Your task to perform on an android device: Clear the shopping cart on bestbuy. Add usb-c to usb-a to the cart on bestbuy, then select checkout. Image 0: 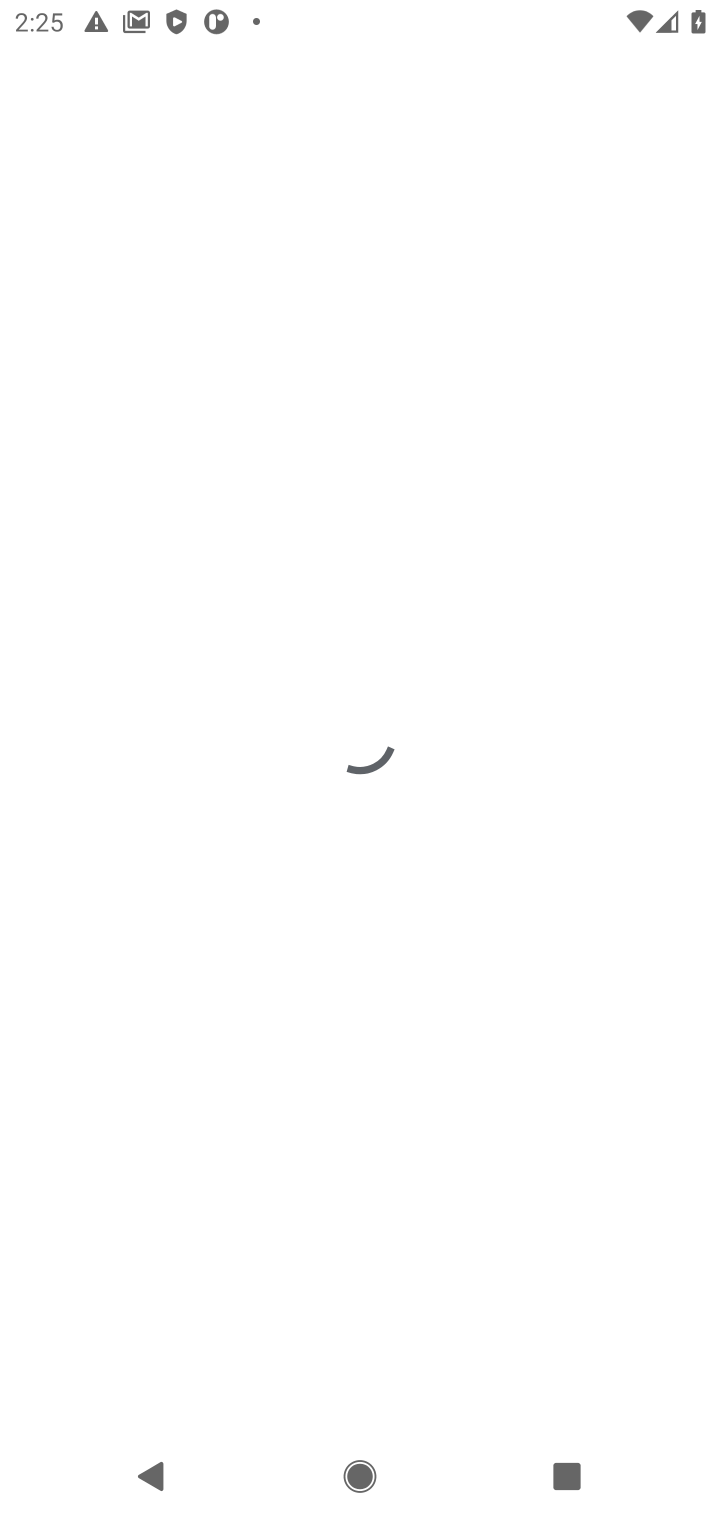
Step 0: press home button
Your task to perform on an android device: Clear the shopping cart on bestbuy. Add usb-c to usb-a to the cart on bestbuy, then select checkout. Image 1: 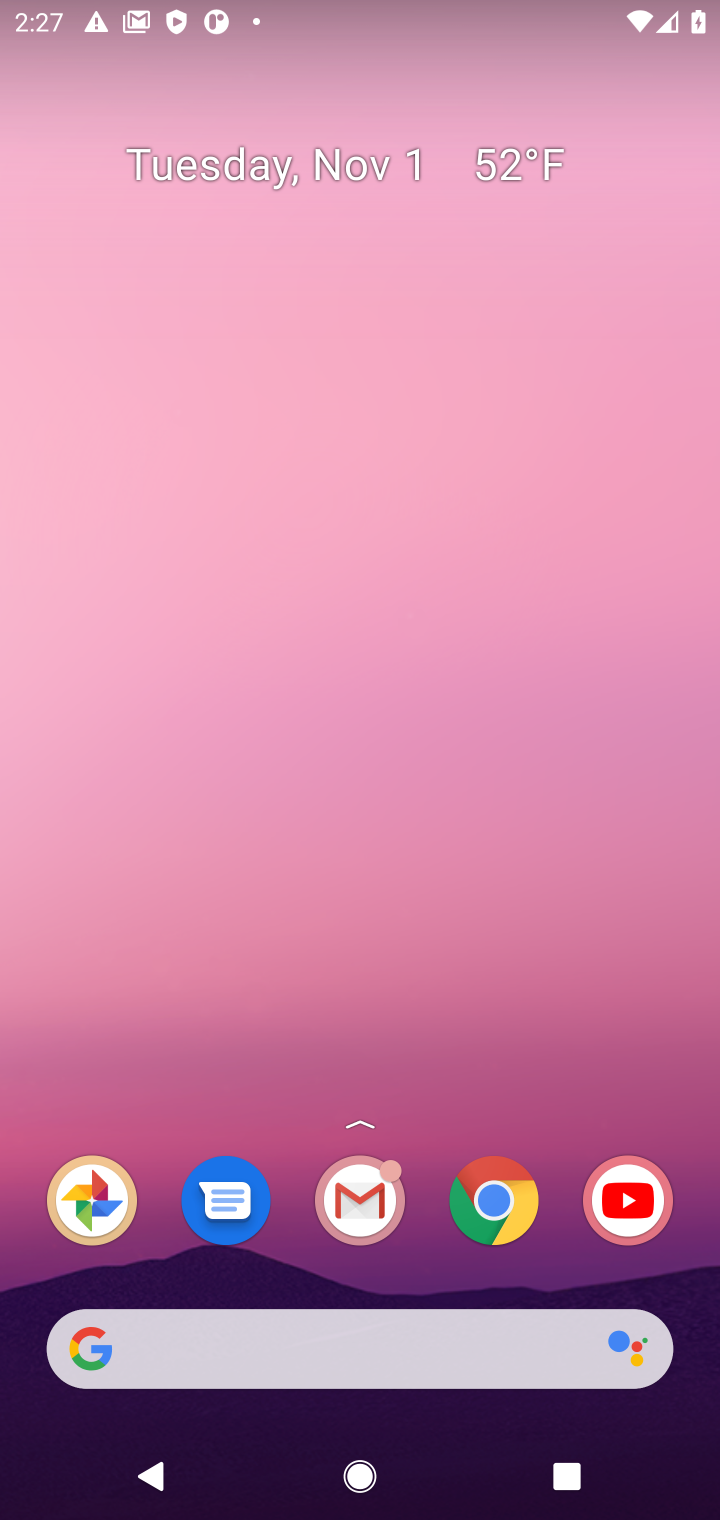
Step 1: click (90, 1350)
Your task to perform on an android device: Clear the shopping cart on bestbuy. Add usb-c to usb-a to the cart on bestbuy, then select checkout. Image 2: 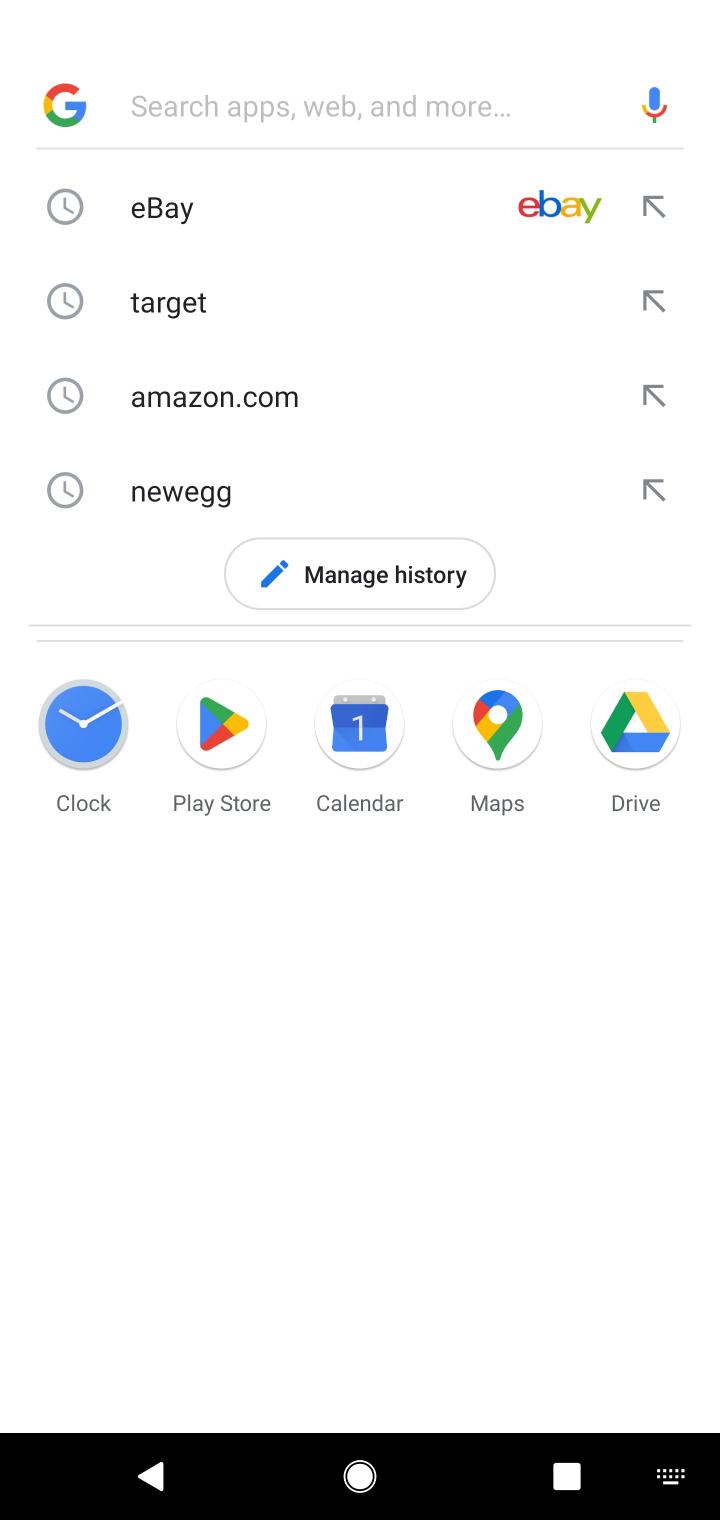
Step 2: type "bestbuy"
Your task to perform on an android device: Clear the shopping cart on bestbuy. Add usb-c to usb-a to the cart on bestbuy, then select checkout. Image 3: 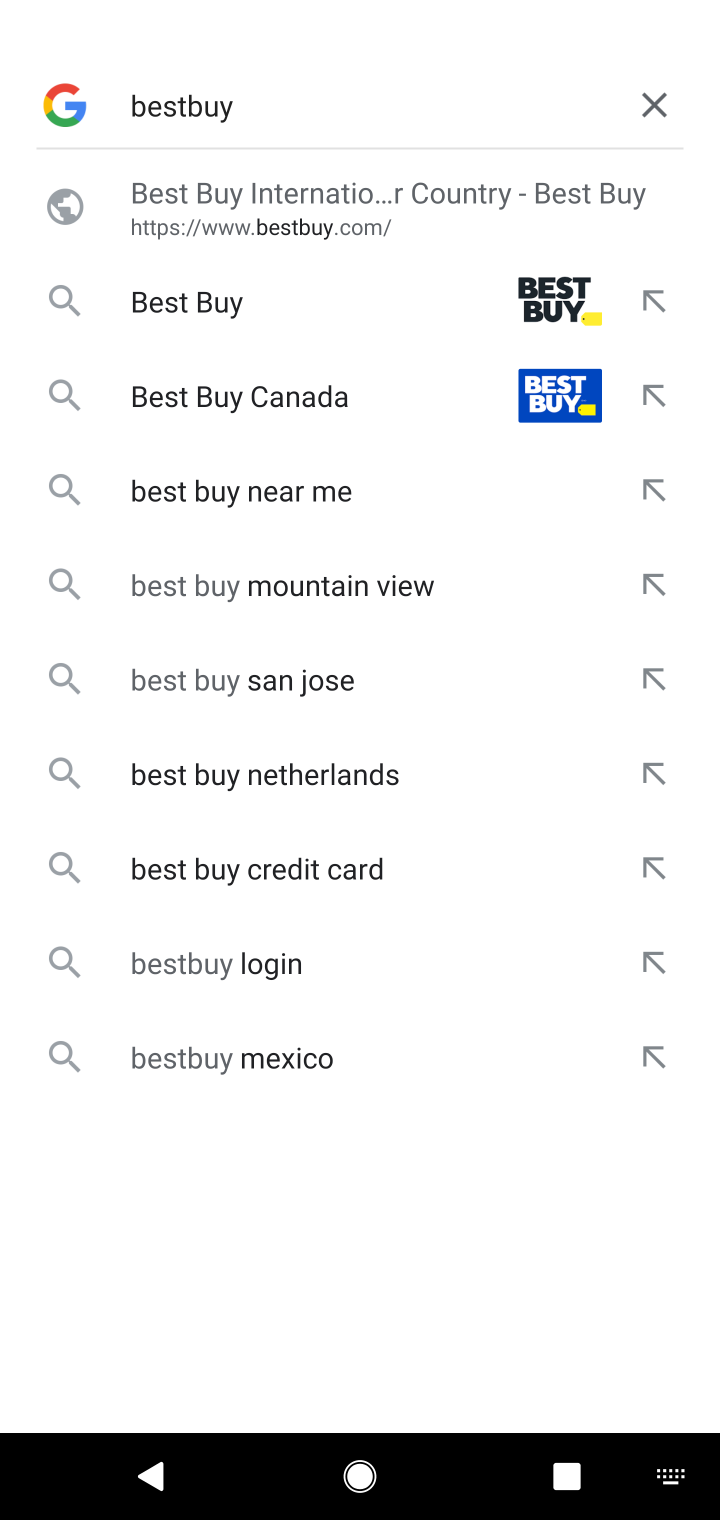
Step 3: click (265, 200)
Your task to perform on an android device: Clear the shopping cart on bestbuy. Add usb-c to usb-a to the cart on bestbuy, then select checkout. Image 4: 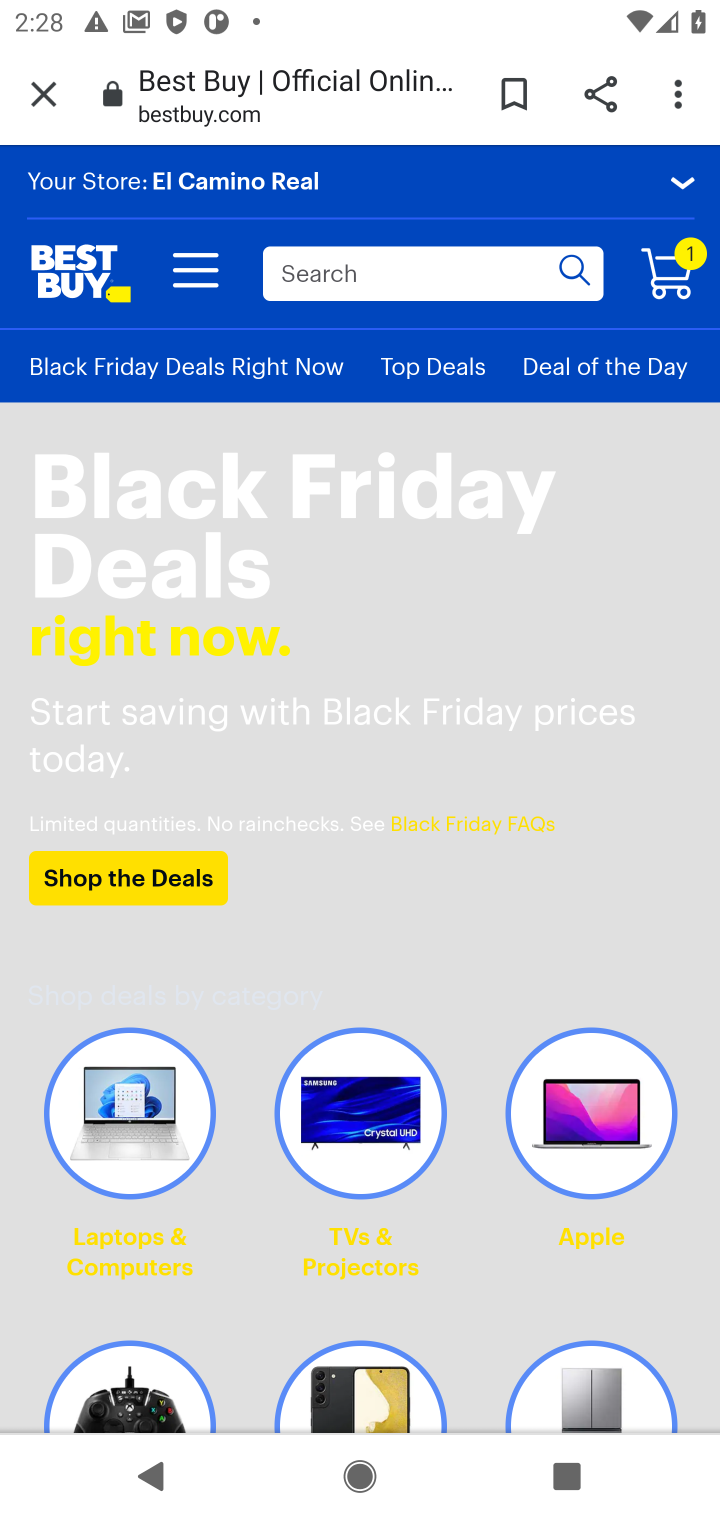
Step 4: click (367, 272)
Your task to perform on an android device: Clear the shopping cart on bestbuy. Add usb-c to usb-a to the cart on bestbuy, then select checkout. Image 5: 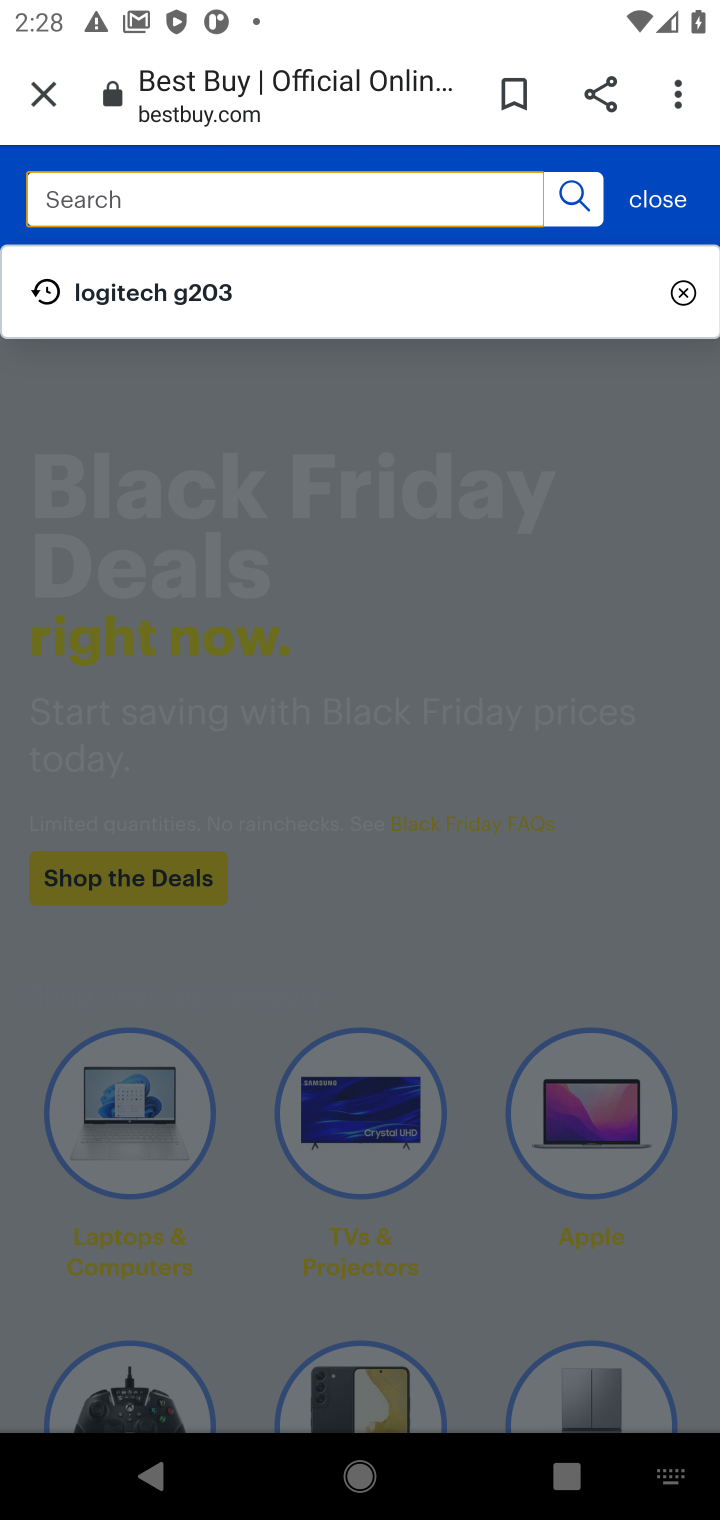
Step 5: type "usb-c to usb-a"
Your task to perform on an android device: Clear the shopping cart on bestbuy. Add usb-c to usb-a to the cart on bestbuy, then select checkout. Image 6: 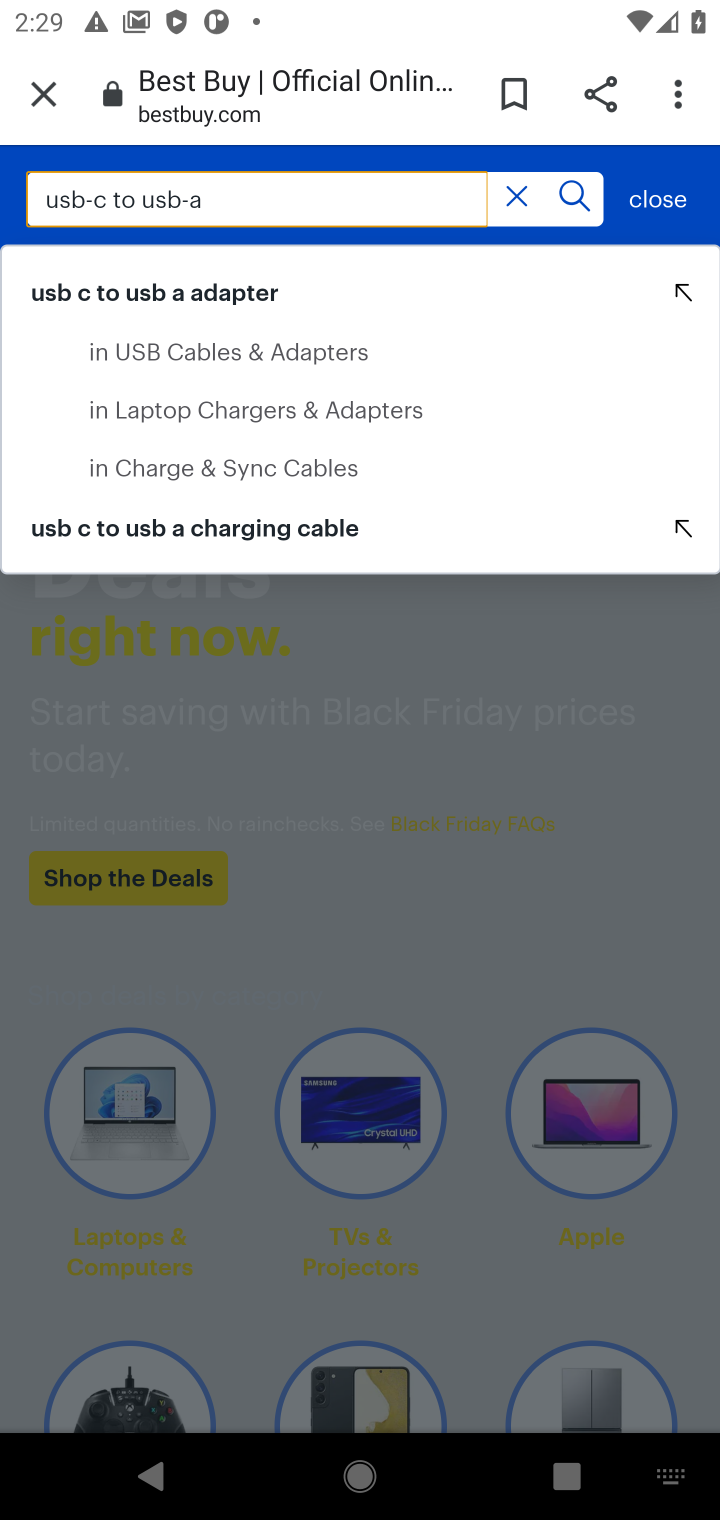
Step 6: click (181, 294)
Your task to perform on an android device: Clear the shopping cart on bestbuy. Add usb-c to usb-a to the cart on bestbuy, then select checkout. Image 7: 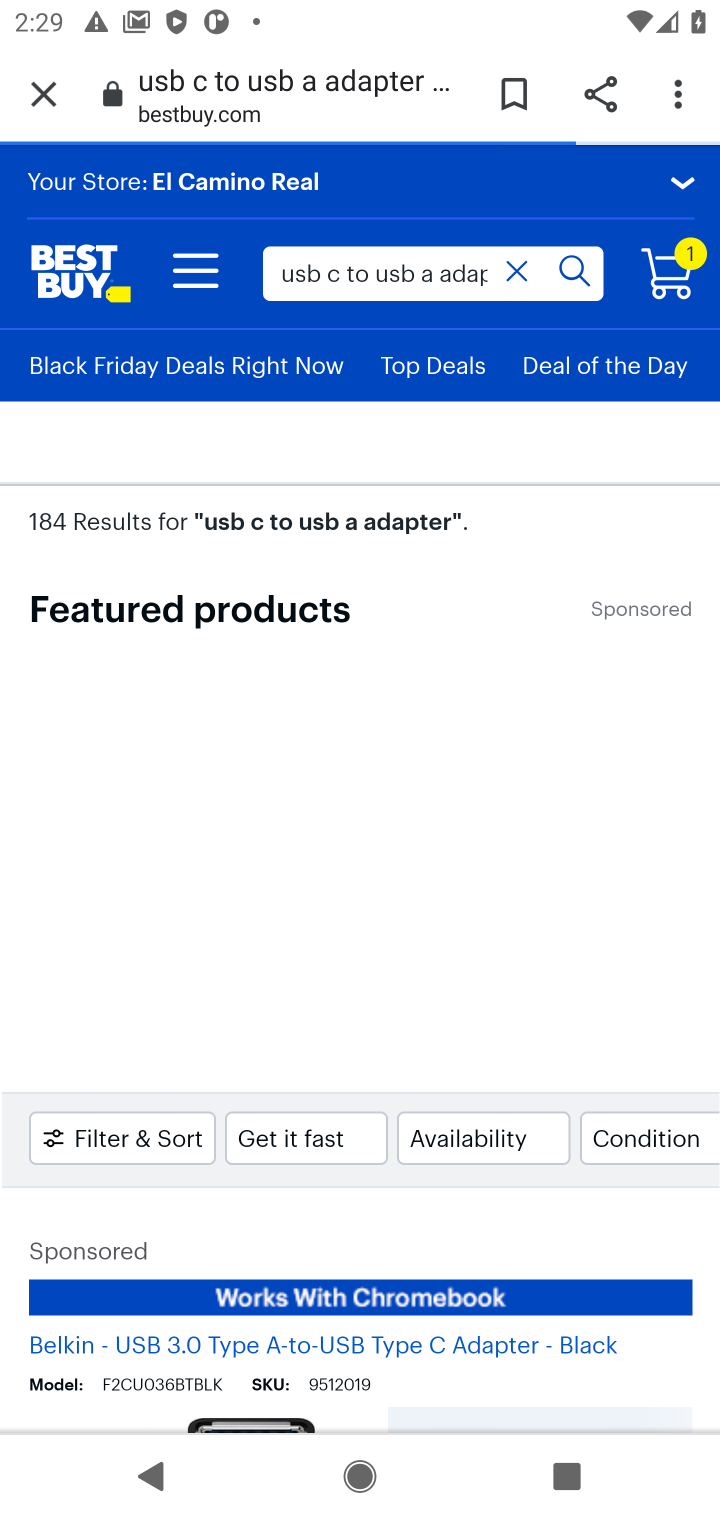
Step 7: click (675, 265)
Your task to perform on an android device: Clear the shopping cart on bestbuy. Add usb-c to usb-a to the cart on bestbuy, then select checkout. Image 8: 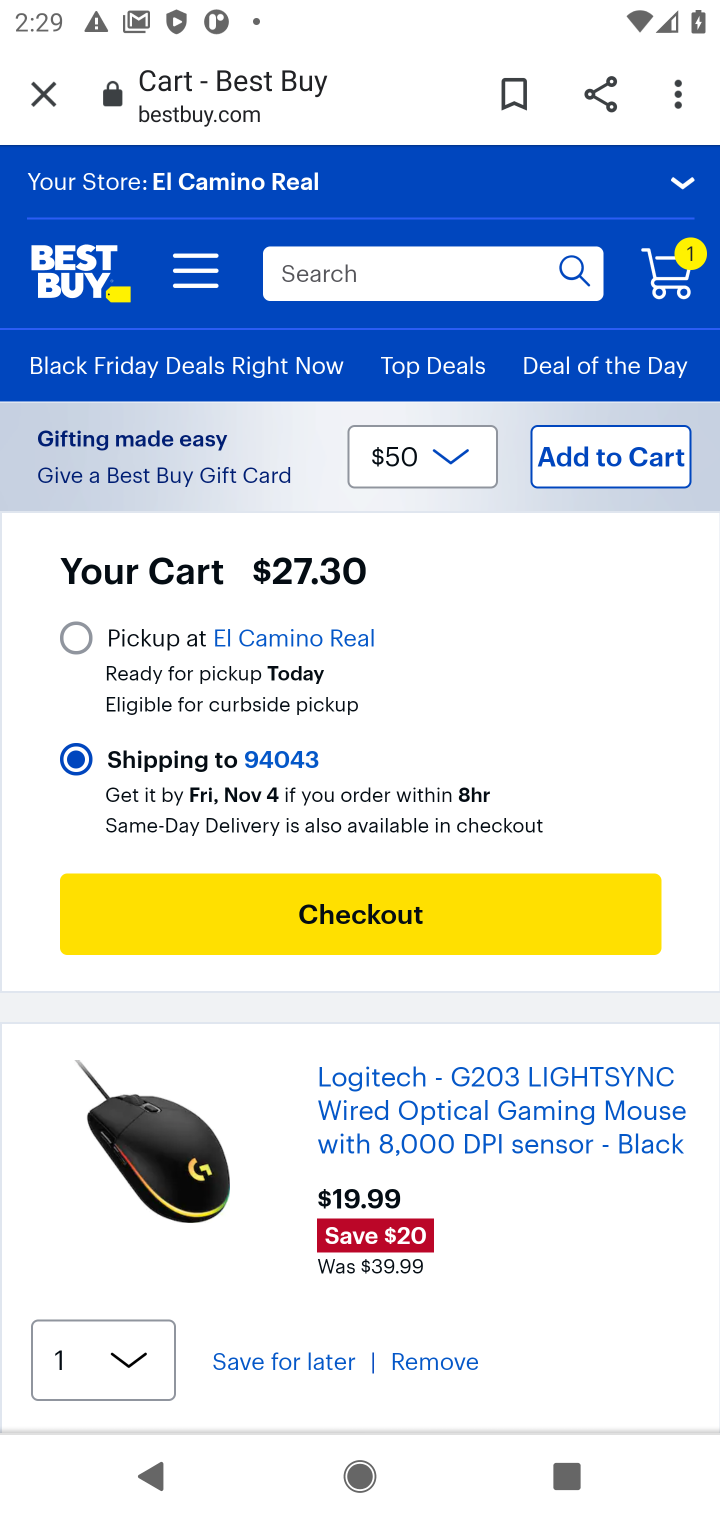
Step 8: click (448, 1362)
Your task to perform on an android device: Clear the shopping cart on bestbuy. Add usb-c to usb-a to the cart on bestbuy, then select checkout. Image 9: 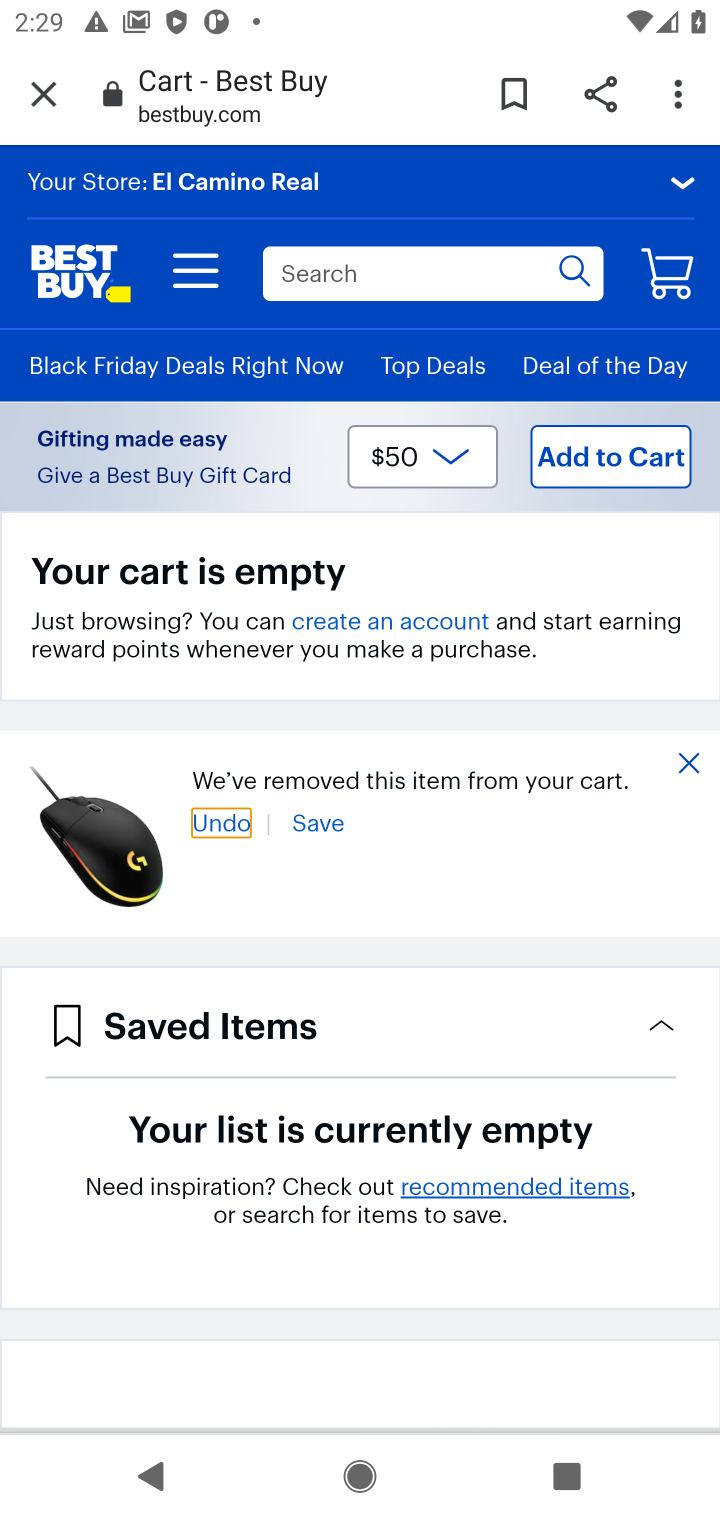
Step 9: click (377, 287)
Your task to perform on an android device: Clear the shopping cart on bestbuy. Add usb-c to usb-a to the cart on bestbuy, then select checkout. Image 10: 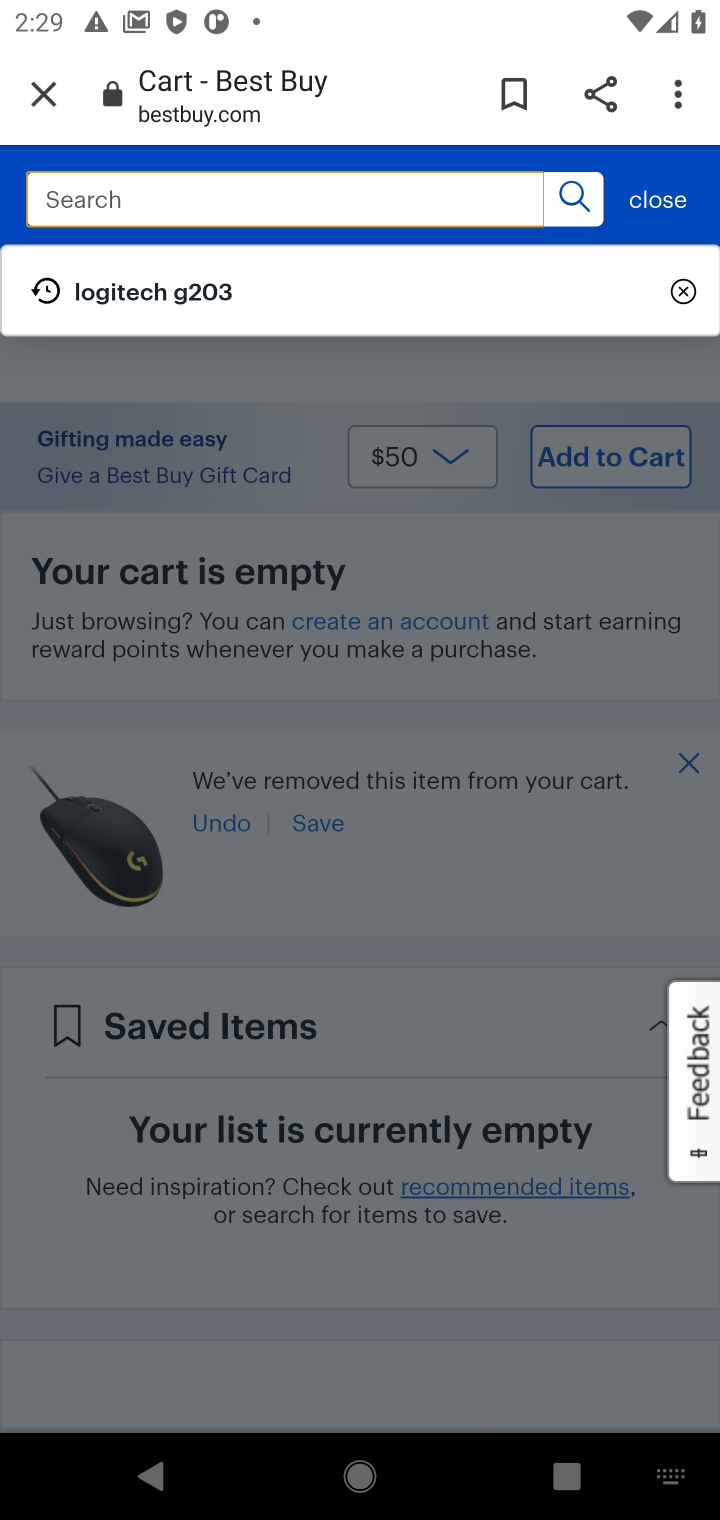
Step 10: type "usb-c to usb-a"
Your task to perform on an android device: Clear the shopping cart on bestbuy. Add usb-c to usb-a to the cart on bestbuy, then select checkout. Image 11: 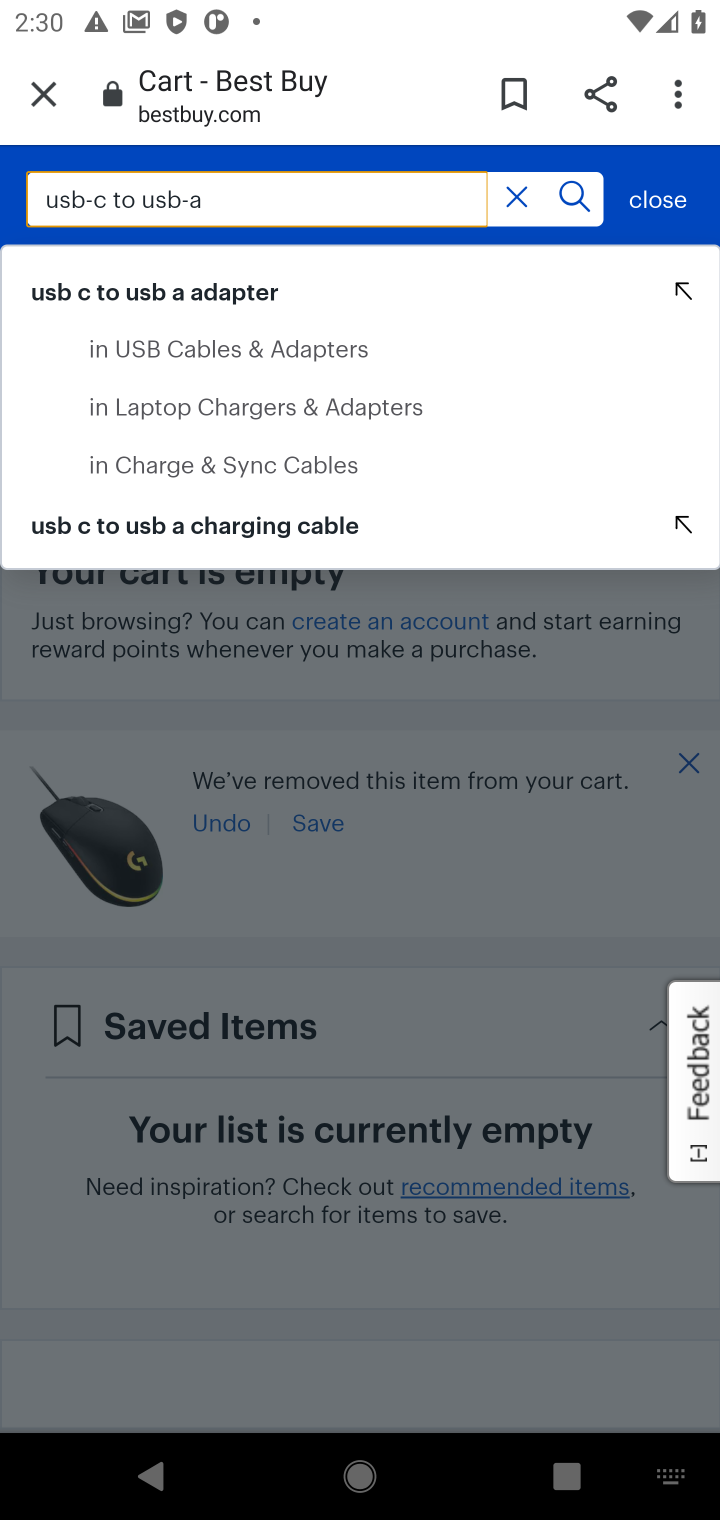
Step 11: click (220, 291)
Your task to perform on an android device: Clear the shopping cart on bestbuy. Add usb-c to usb-a to the cart on bestbuy, then select checkout. Image 12: 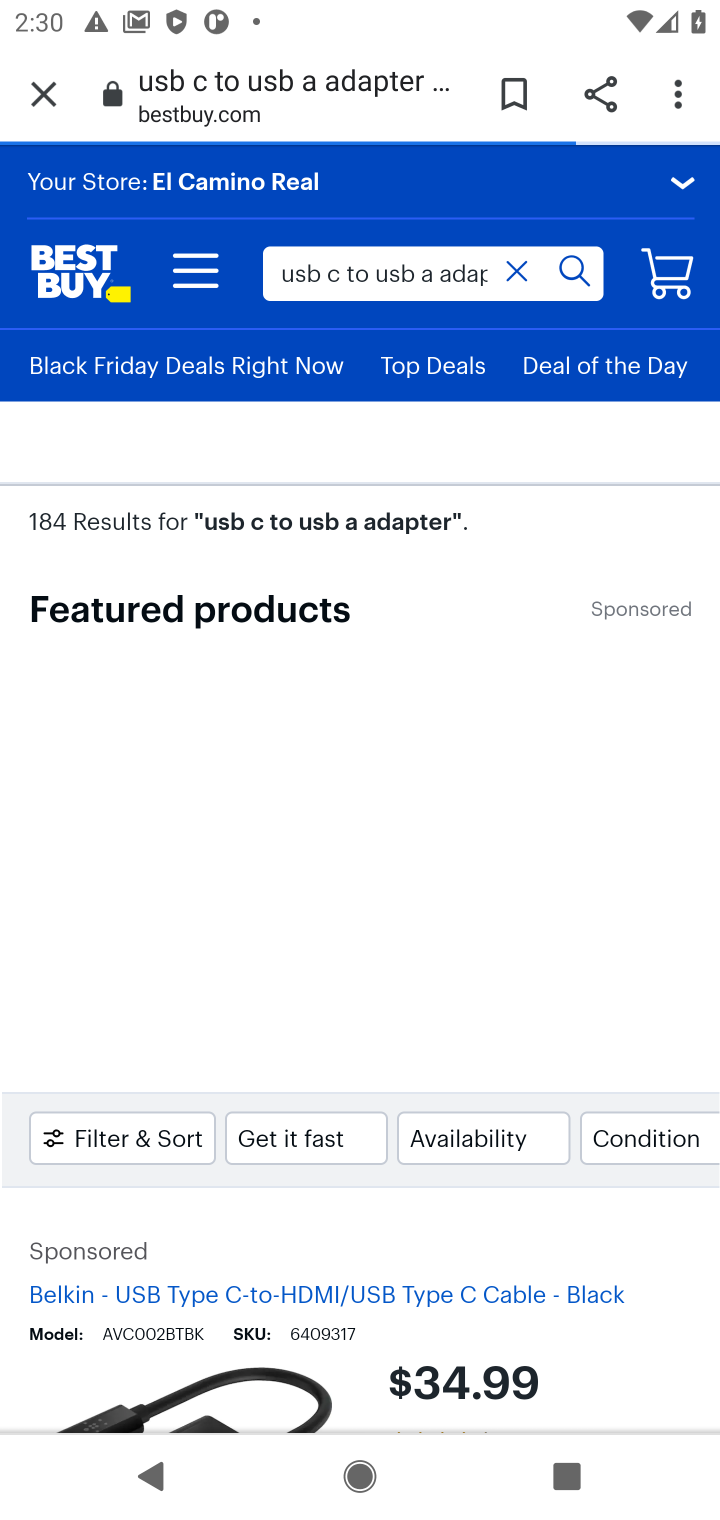
Step 12: drag from (627, 1340) to (502, 474)
Your task to perform on an android device: Clear the shopping cart on bestbuy. Add usb-c to usb-a to the cart on bestbuy, then select checkout. Image 13: 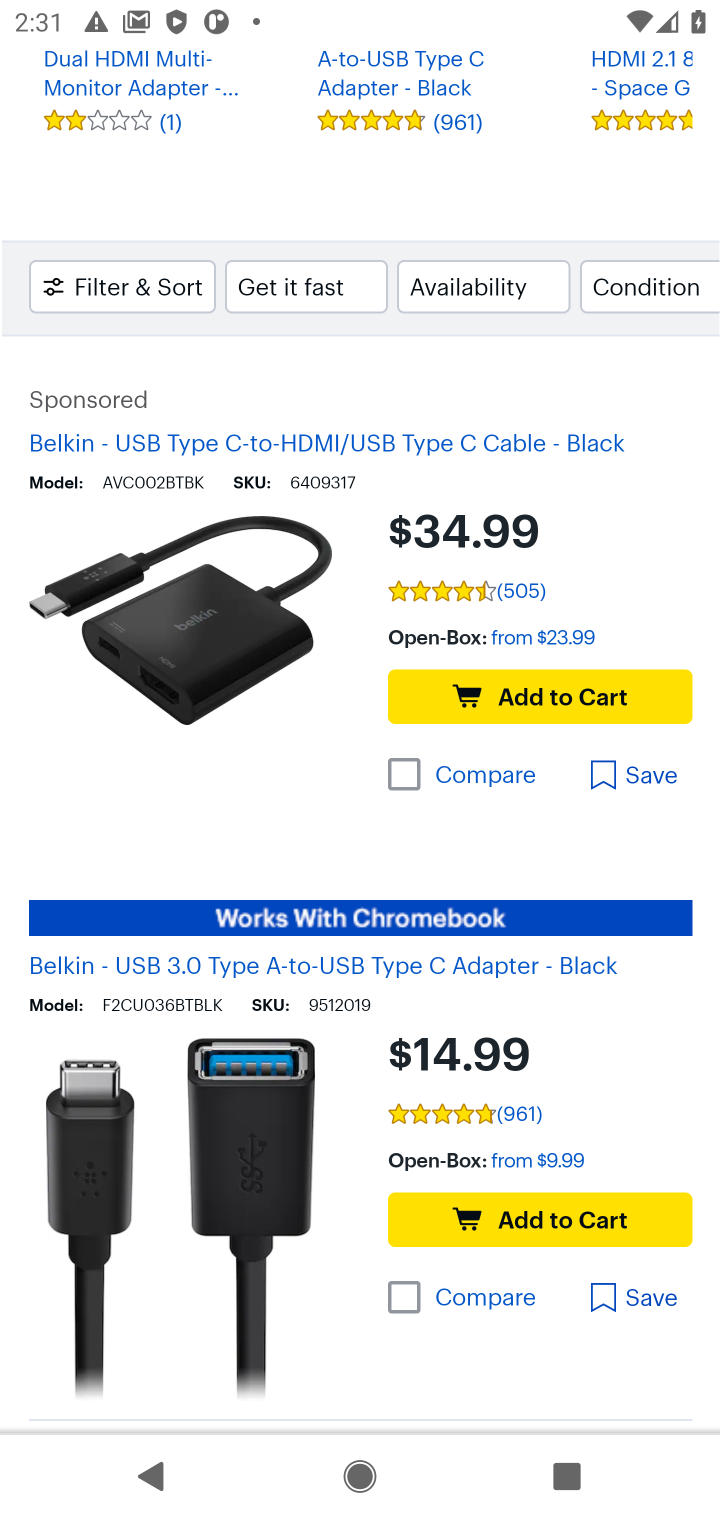
Step 13: click (551, 790)
Your task to perform on an android device: Clear the shopping cart on bestbuy. Add usb-c to usb-a to the cart on bestbuy, then select checkout. Image 14: 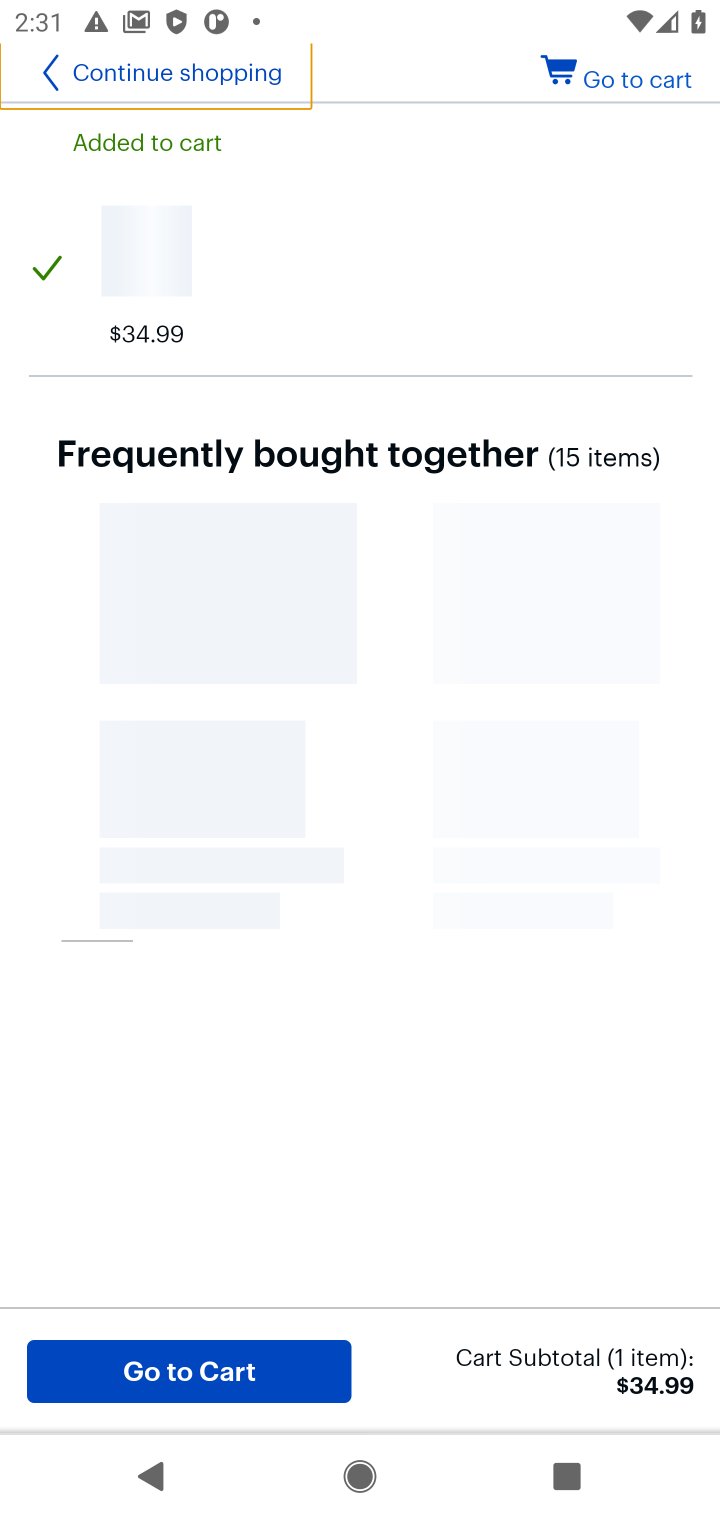
Step 14: click (204, 1364)
Your task to perform on an android device: Clear the shopping cart on bestbuy. Add usb-c to usb-a to the cart on bestbuy, then select checkout. Image 15: 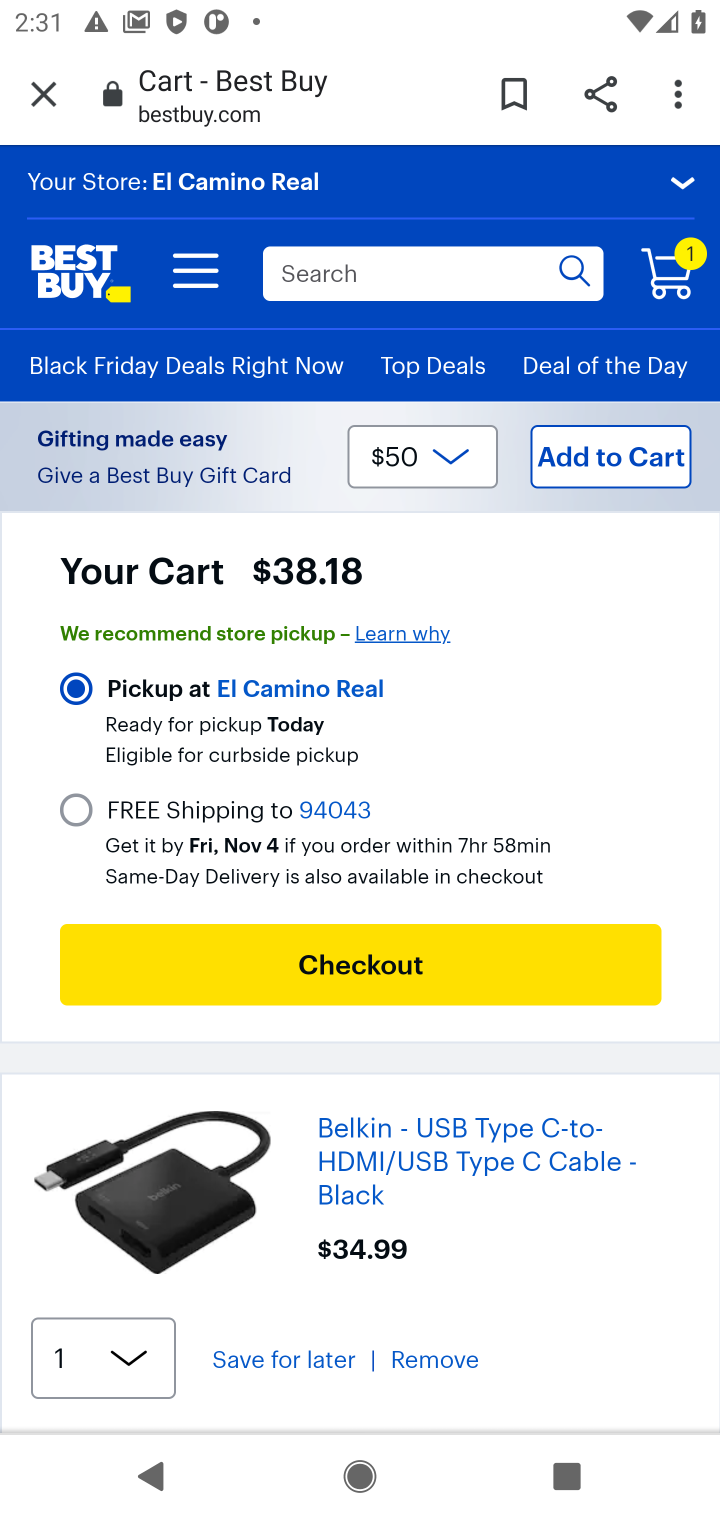
Step 15: click (381, 955)
Your task to perform on an android device: Clear the shopping cart on bestbuy. Add usb-c to usb-a to the cart on bestbuy, then select checkout. Image 16: 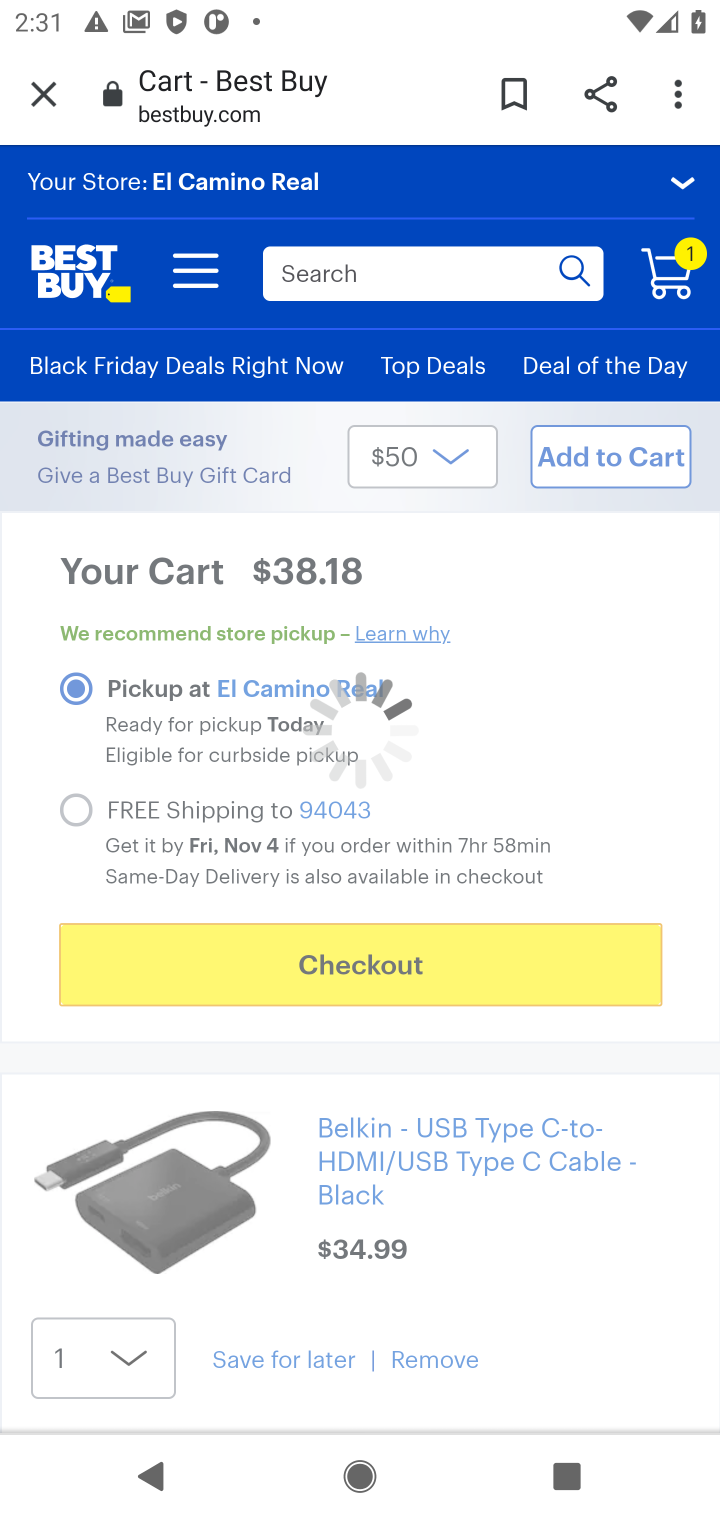
Step 16: task complete